Your task to perform on an android device: Go to display settings Image 0: 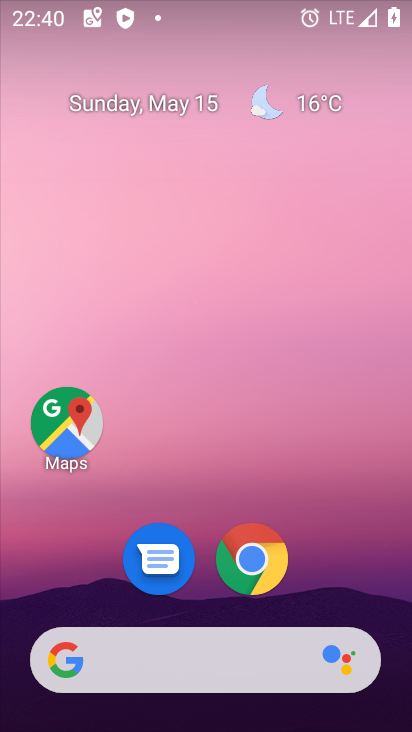
Step 0: drag from (203, 472) to (161, 102)
Your task to perform on an android device: Go to display settings Image 1: 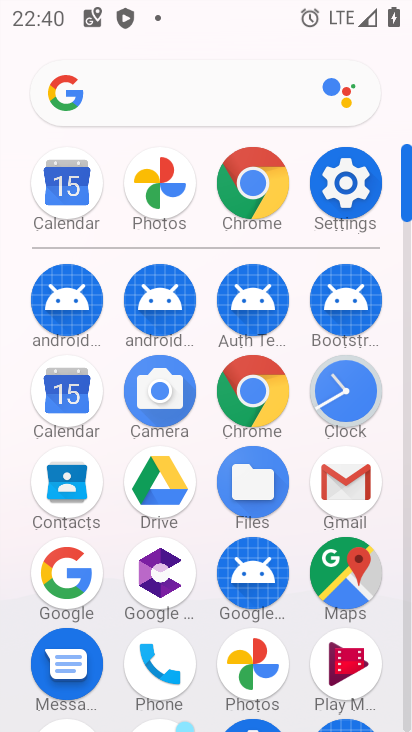
Step 1: click (351, 189)
Your task to perform on an android device: Go to display settings Image 2: 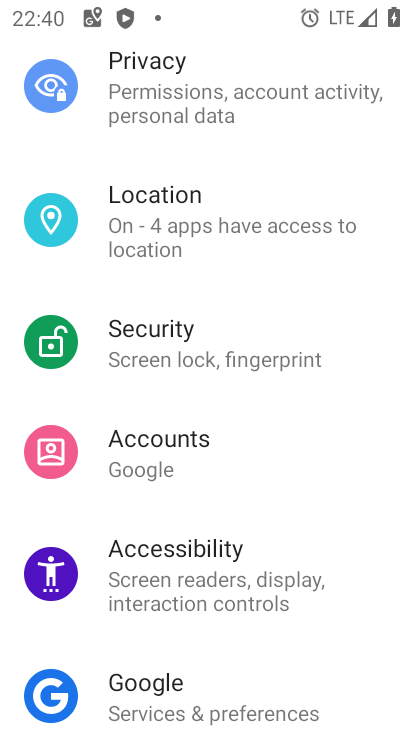
Step 2: drag from (251, 166) to (147, 490)
Your task to perform on an android device: Go to display settings Image 3: 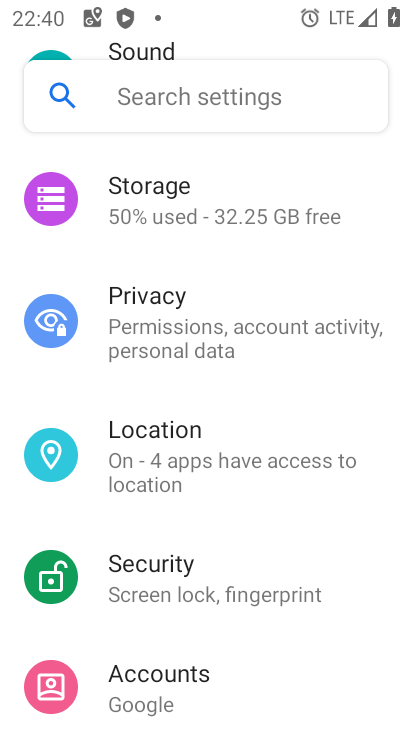
Step 3: drag from (297, 505) to (343, 37)
Your task to perform on an android device: Go to display settings Image 4: 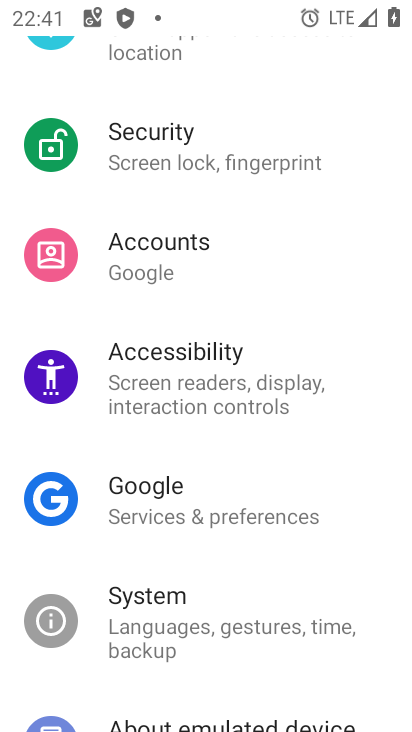
Step 4: drag from (211, 279) to (183, 702)
Your task to perform on an android device: Go to display settings Image 5: 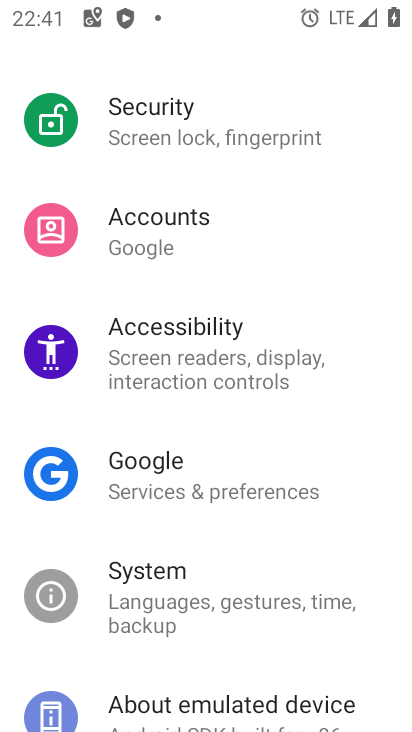
Step 5: drag from (212, 172) to (207, 638)
Your task to perform on an android device: Go to display settings Image 6: 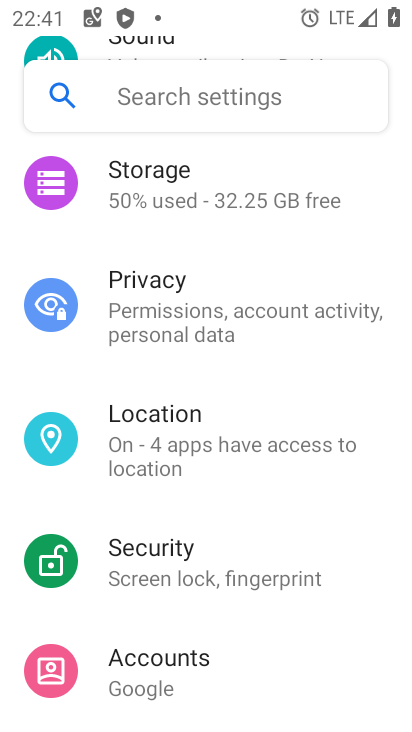
Step 6: drag from (205, 241) to (201, 585)
Your task to perform on an android device: Go to display settings Image 7: 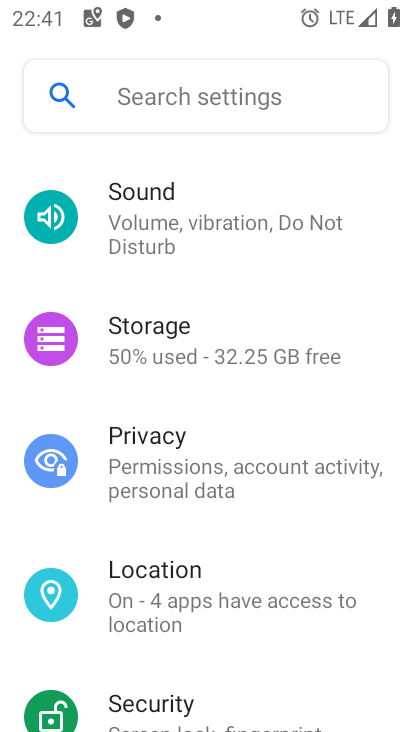
Step 7: drag from (140, 276) to (160, 730)
Your task to perform on an android device: Go to display settings Image 8: 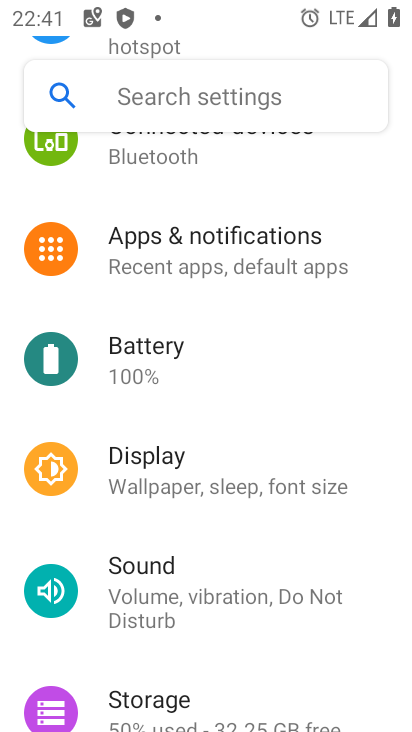
Step 8: drag from (191, 193) to (218, 729)
Your task to perform on an android device: Go to display settings Image 9: 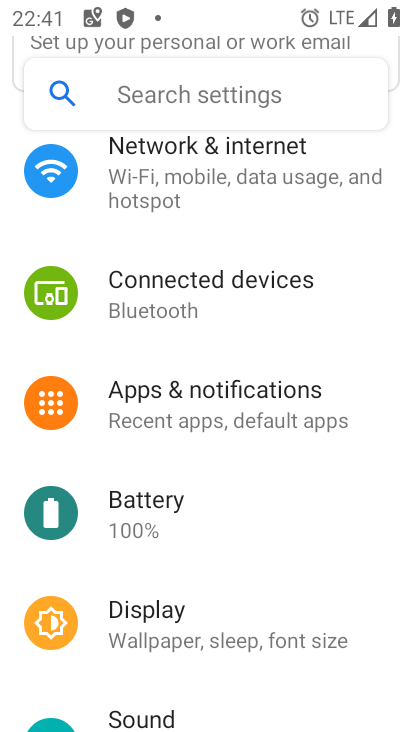
Step 9: click (151, 617)
Your task to perform on an android device: Go to display settings Image 10: 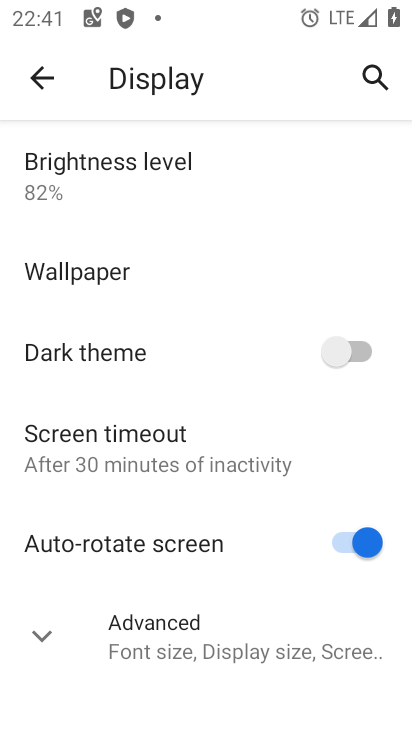
Step 10: task complete